Your task to perform on an android device: open sync settings in chrome Image 0: 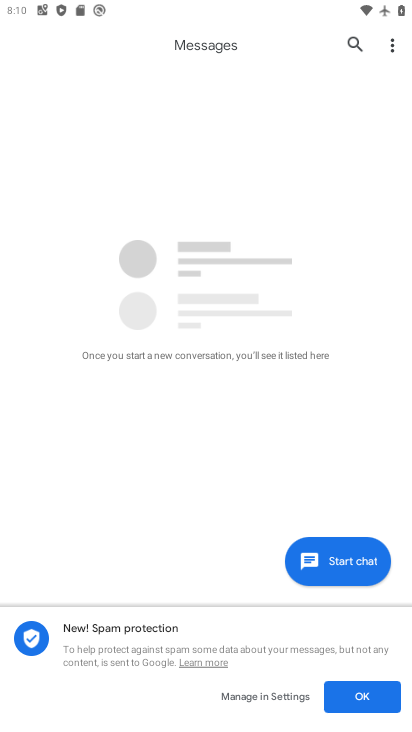
Step 0: press home button
Your task to perform on an android device: open sync settings in chrome Image 1: 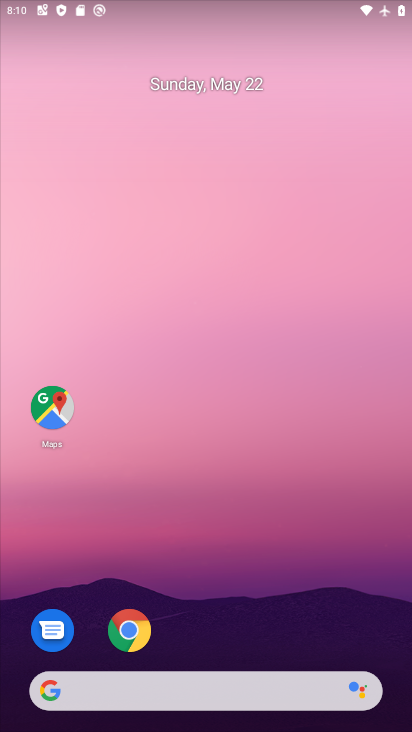
Step 1: click (130, 630)
Your task to perform on an android device: open sync settings in chrome Image 2: 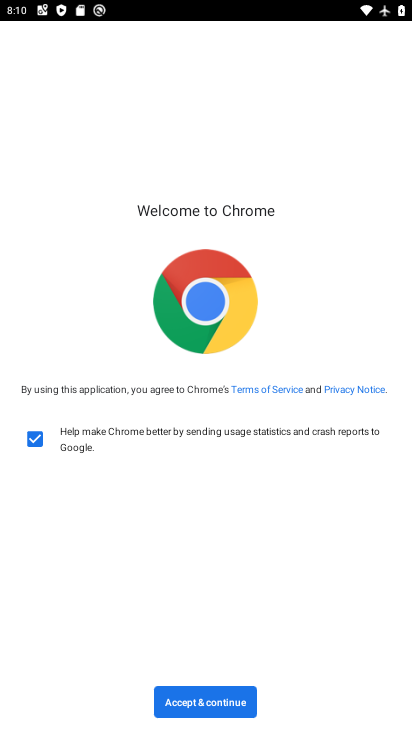
Step 2: click (193, 696)
Your task to perform on an android device: open sync settings in chrome Image 3: 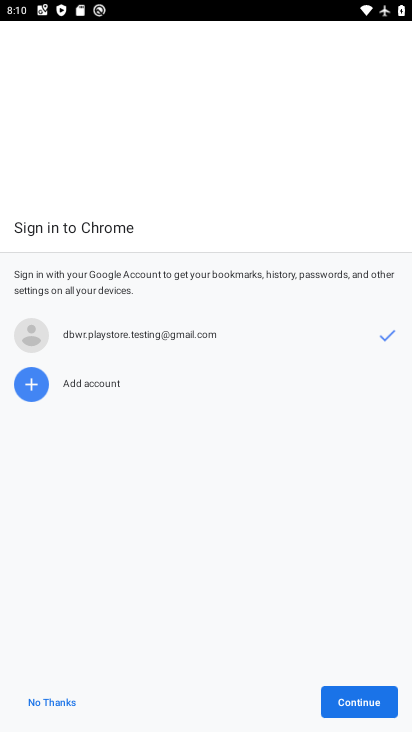
Step 3: click (346, 699)
Your task to perform on an android device: open sync settings in chrome Image 4: 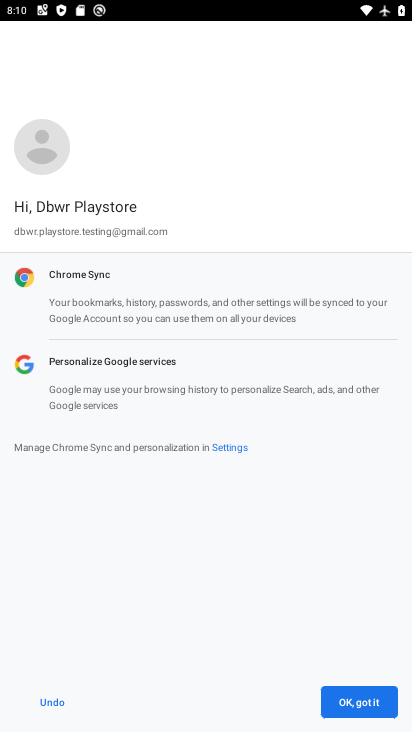
Step 4: click (346, 699)
Your task to perform on an android device: open sync settings in chrome Image 5: 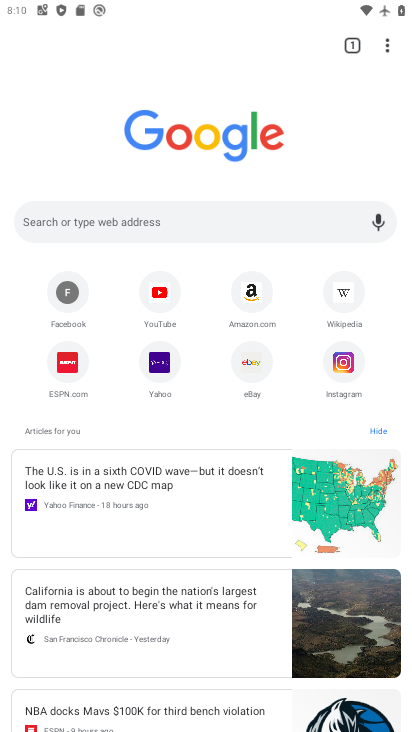
Step 5: click (386, 47)
Your task to perform on an android device: open sync settings in chrome Image 6: 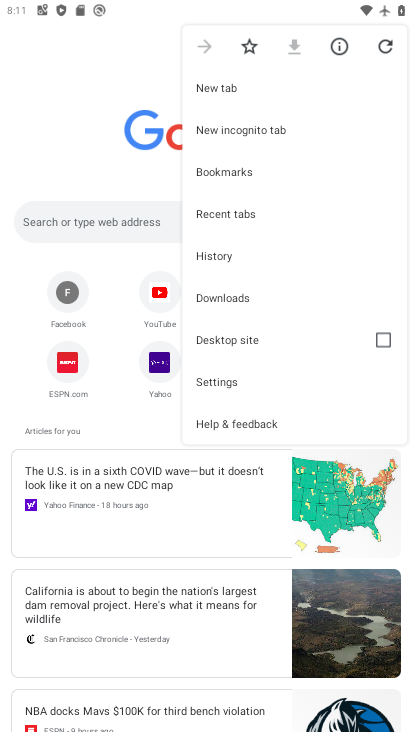
Step 6: click (221, 378)
Your task to perform on an android device: open sync settings in chrome Image 7: 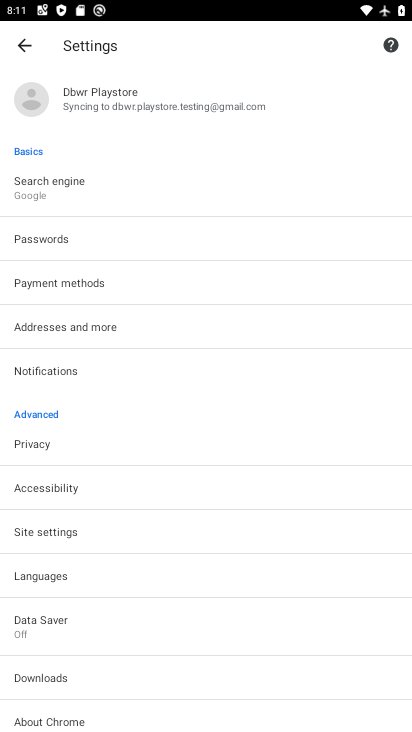
Step 7: click (87, 92)
Your task to perform on an android device: open sync settings in chrome Image 8: 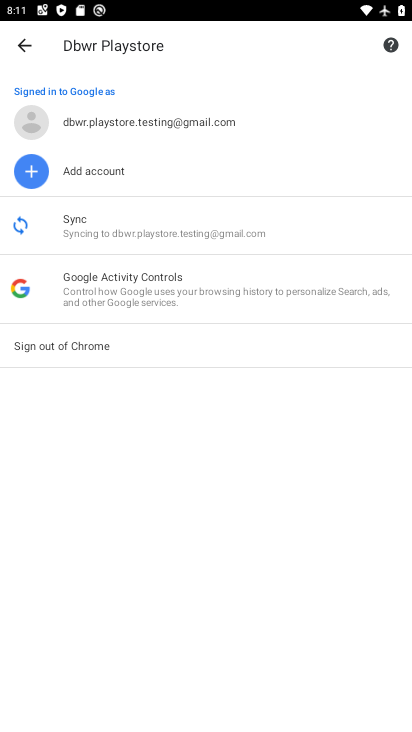
Step 8: click (79, 229)
Your task to perform on an android device: open sync settings in chrome Image 9: 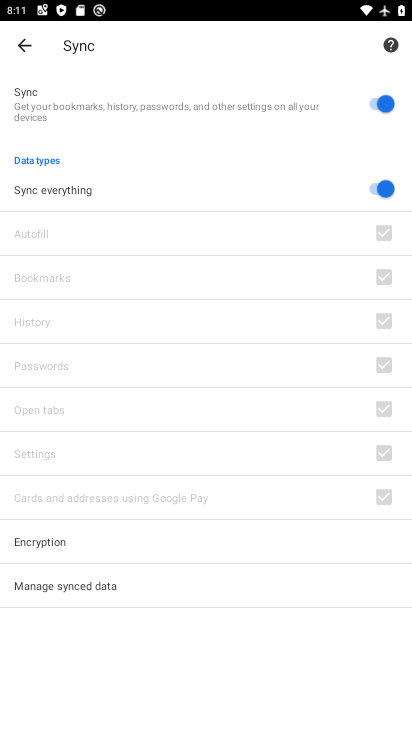
Step 9: task complete